Your task to perform on an android device: change the clock display to show seconds Image 0: 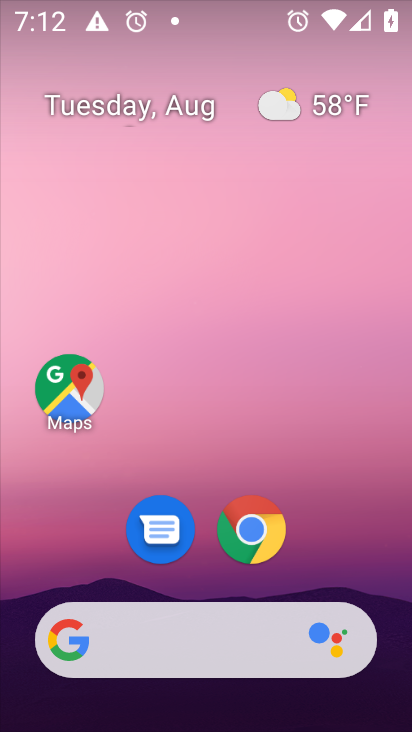
Step 0: press home button
Your task to perform on an android device: change the clock display to show seconds Image 1: 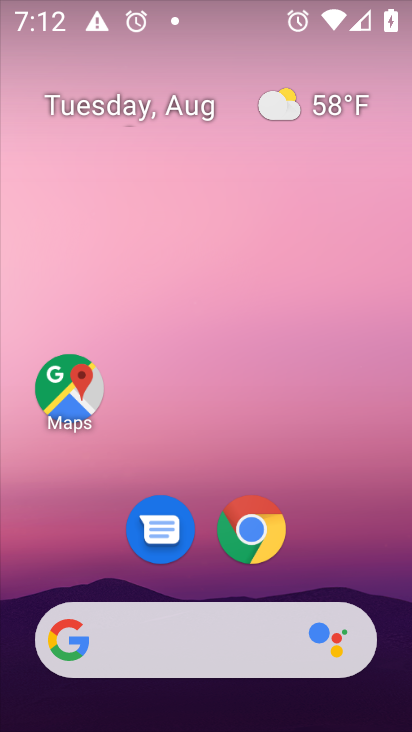
Step 1: drag from (205, 570) to (227, 104)
Your task to perform on an android device: change the clock display to show seconds Image 2: 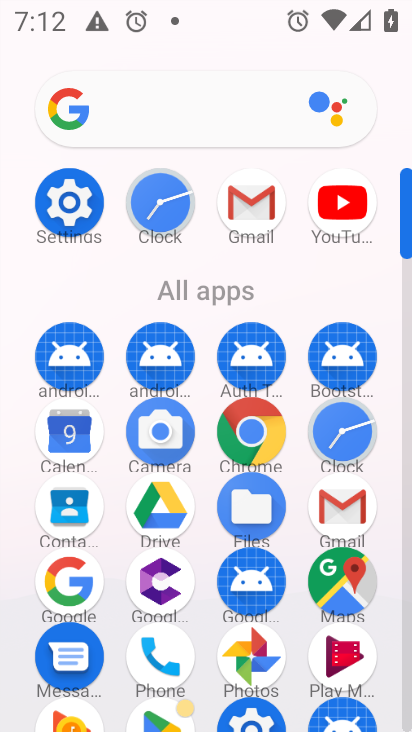
Step 2: click (156, 212)
Your task to perform on an android device: change the clock display to show seconds Image 3: 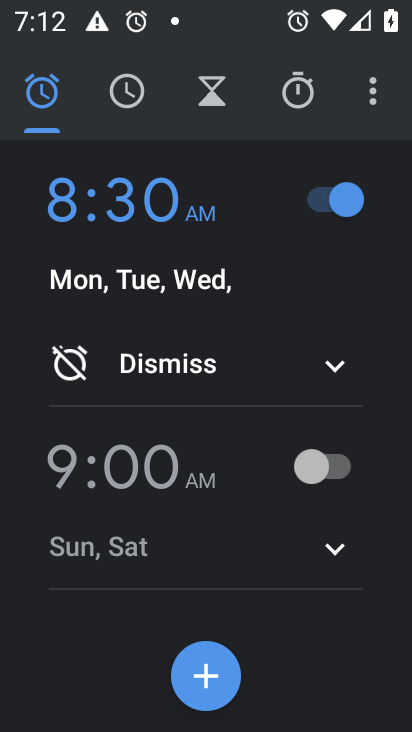
Step 3: click (383, 92)
Your task to perform on an android device: change the clock display to show seconds Image 4: 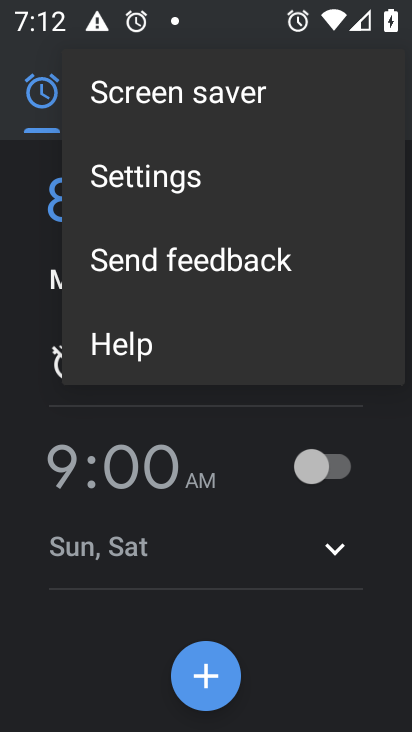
Step 4: click (146, 175)
Your task to perform on an android device: change the clock display to show seconds Image 5: 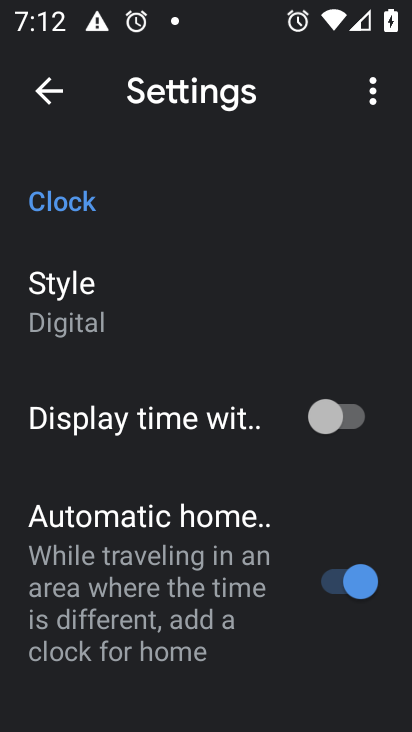
Step 5: click (317, 425)
Your task to perform on an android device: change the clock display to show seconds Image 6: 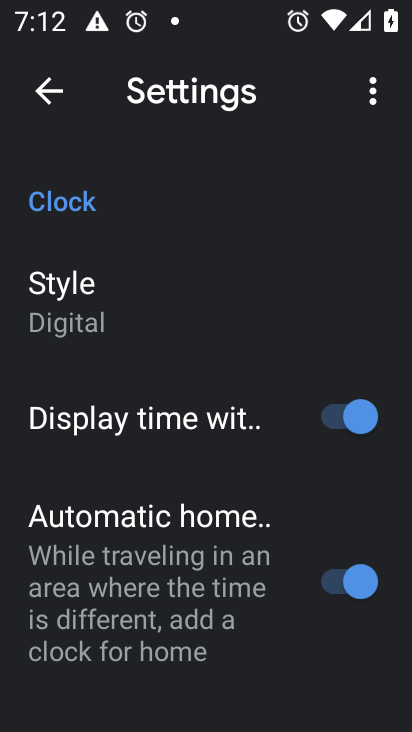
Step 6: task complete